Your task to perform on an android device: See recent photos Image 0: 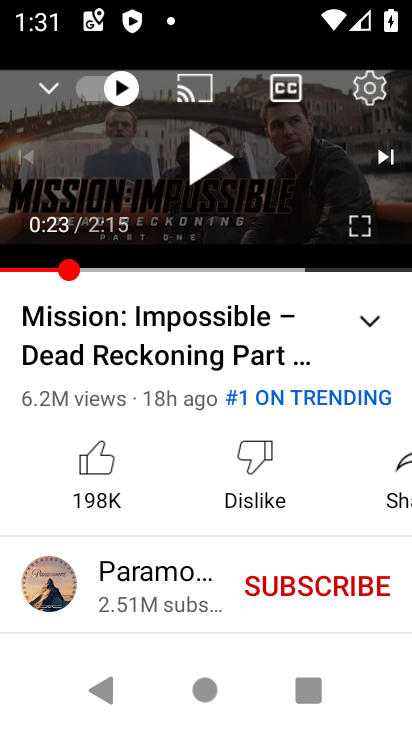
Step 0: press home button
Your task to perform on an android device: See recent photos Image 1: 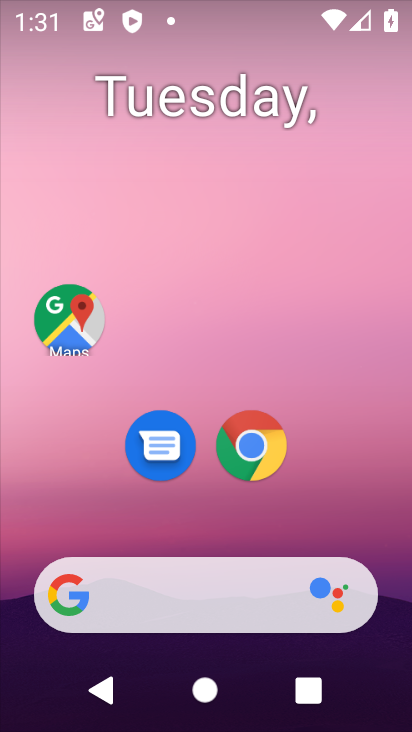
Step 1: drag from (358, 417) to (356, 74)
Your task to perform on an android device: See recent photos Image 2: 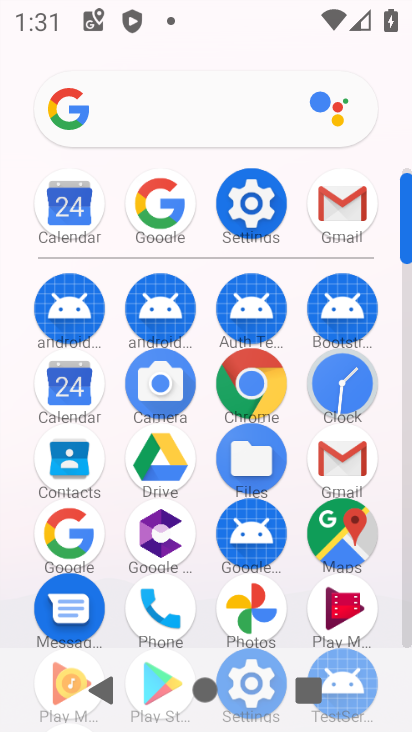
Step 2: click (254, 592)
Your task to perform on an android device: See recent photos Image 3: 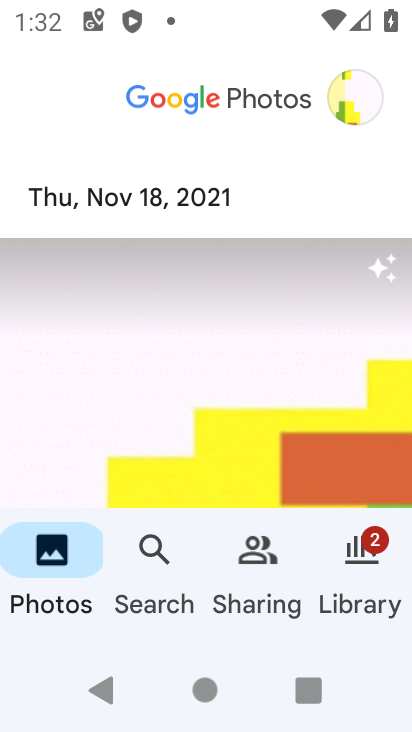
Step 3: click (71, 575)
Your task to perform on an android device: See recent photos Image 4: 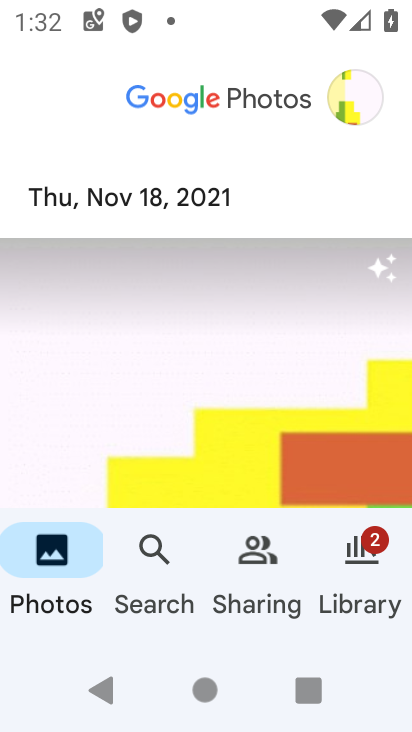
Step 4: task complete